Your task to perform on an android device: Open Android settings Image 0: 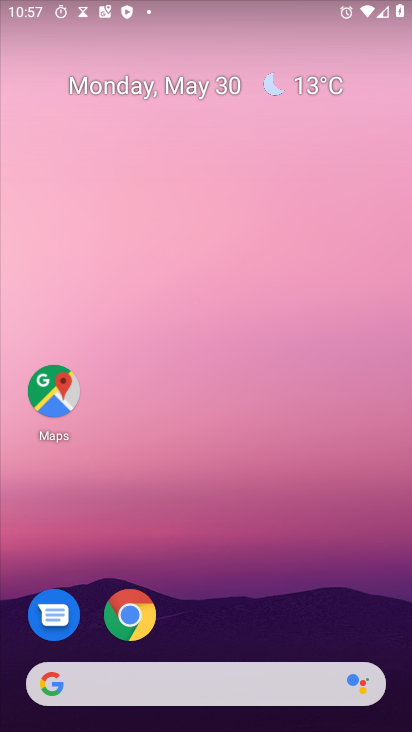
Step 0: drag from (265, 556) to (237, 3)
Your task to perform on an android device: Open Android settings Image 1: 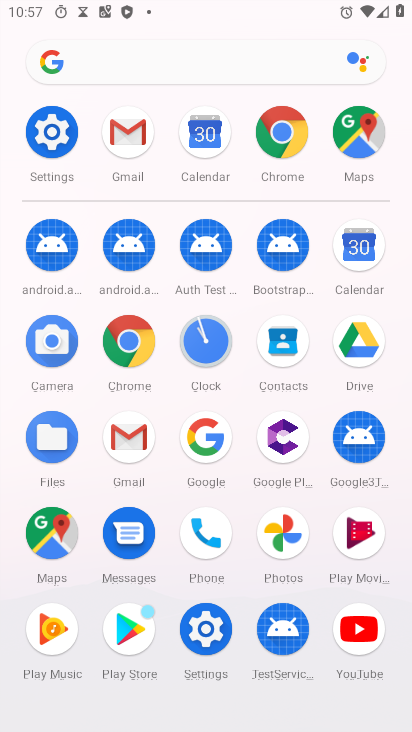
Step 1: click (50, 130)
Your task to perform on an android device: Open Android settings Image 2: 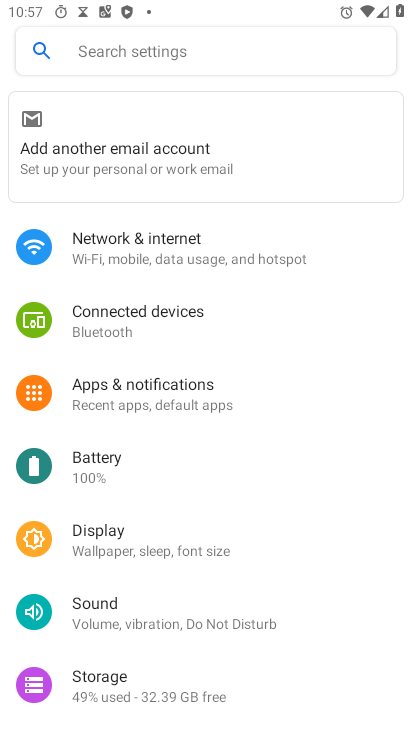
Step 2: task complete